Your task to perform on an android device: Open Google Maps Image 0: 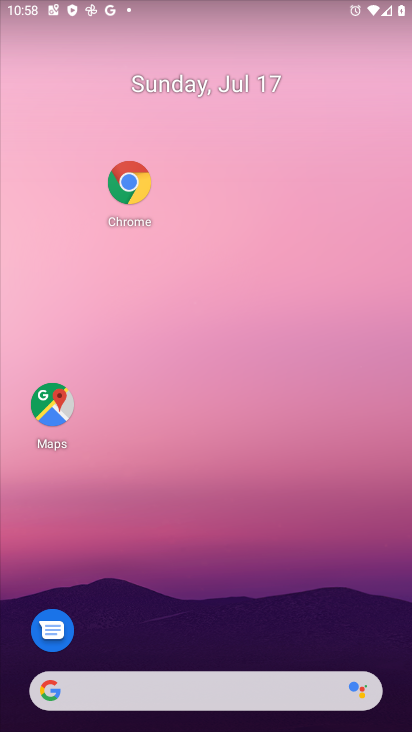
Step 0: click (51, 414)
Your task to perform on an android device: Open Google Maps Image 1: 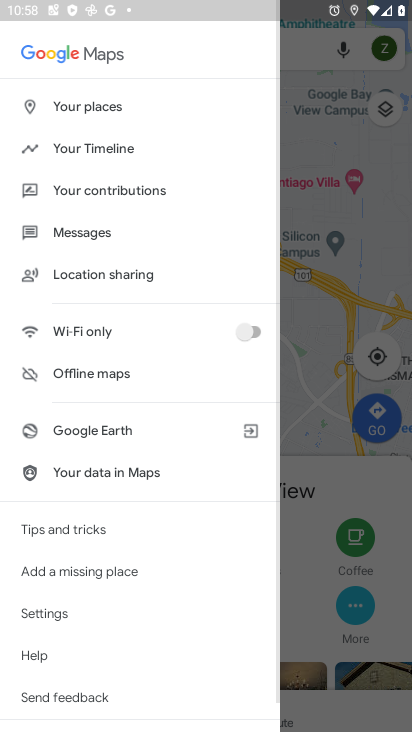
Step 1: task complete